Your task to perform on an android device: turn off javascript in the chrome app Image 0: 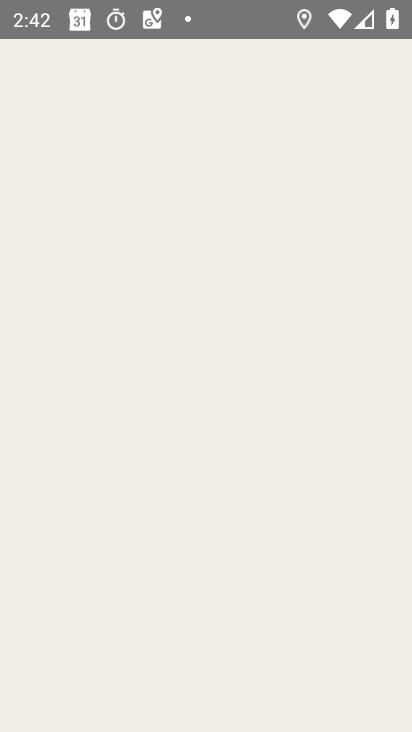
Step 0: click (300, 2)
Your task to perform on an android device: turn off javascript in the chrome app Image 1: 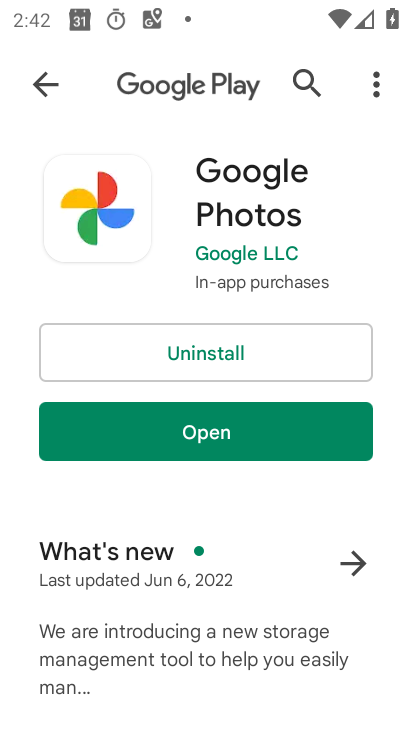
Step 1: press home button
Your task to perform on an android device: turn off javascript in the chrome app Image 2: 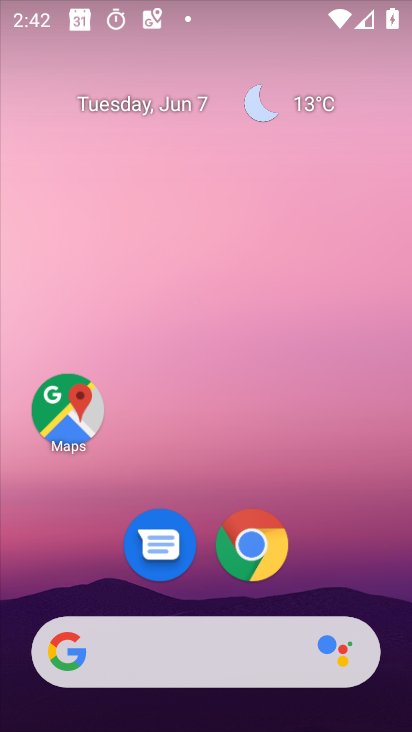
Step 2: click (258, 542)
Your task to perform on an android device: turn off javascript in the chrome app Image 3: 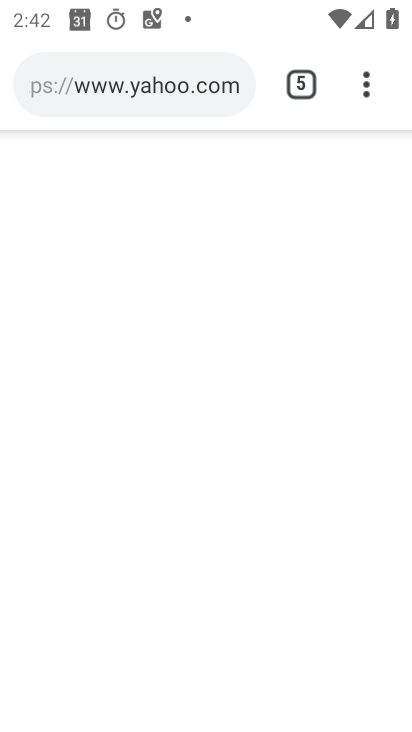
Step 3: click (367, 83)
Your task to perform on an android device: turn off javascript in the chrome app Image 4: 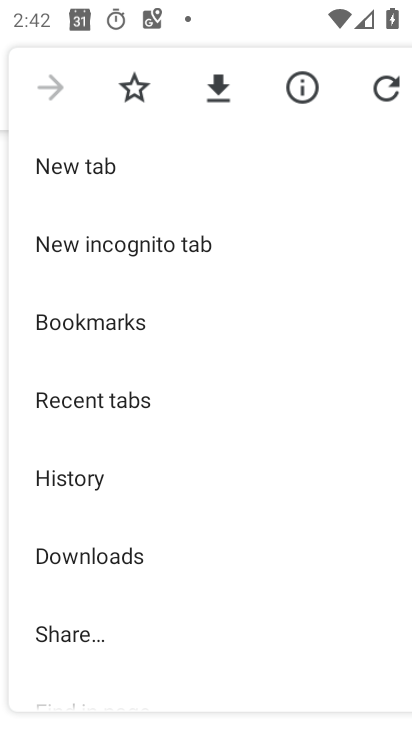
Step 4: drag from (205, 590) to (234, 0)
Your task to perform on an android device: turn off javascript in the chrome app Image 5: 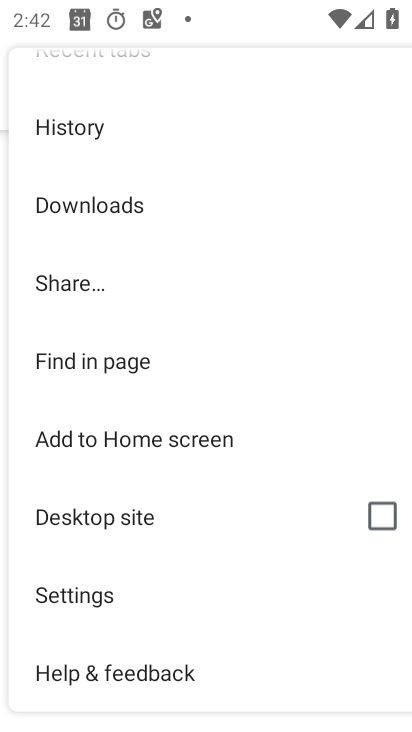
Step 5: click (122, 597)
Your task to perform on an android device: turn off javascript in the chrome app Image 6: 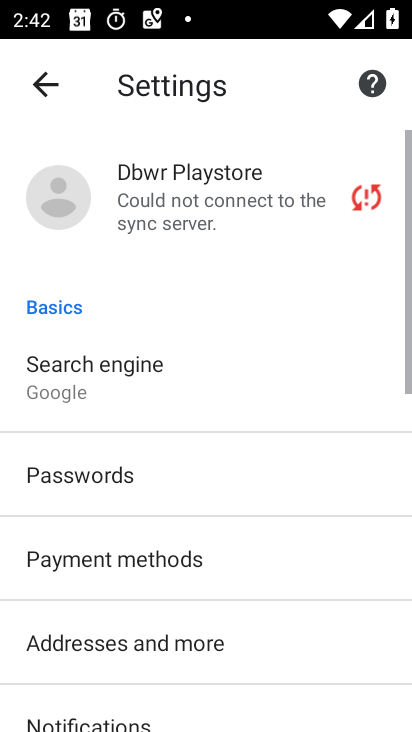
Step 6: drag from (196, 651) to (186, 15)
Your task to perform on an android device: turn off javascript in the chrome app Image 7: 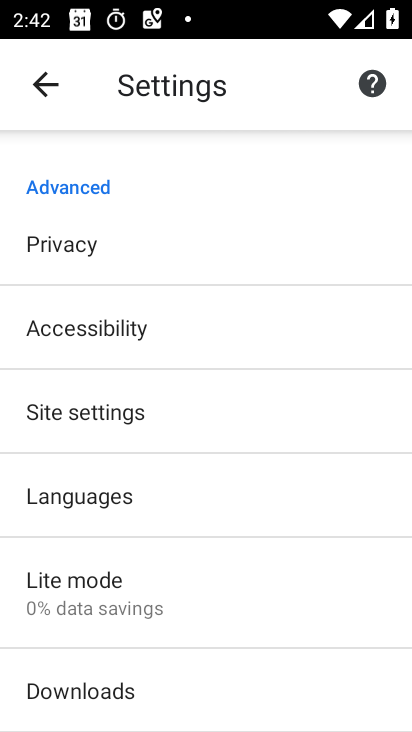
Step 7: click (118, 424)
Your task to perform on an android device: turn off javascript in the chrome app Image 8: 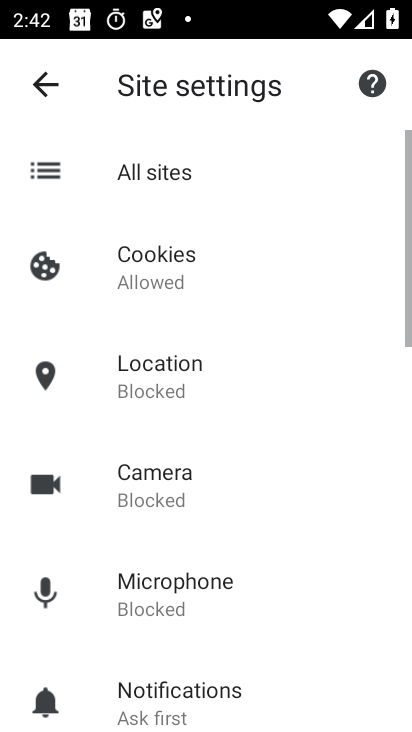
Step 8: drag from (210, 693) to (266, 182)
Your task to perform on an android device: turn off javascript in the chrome app Image 9: 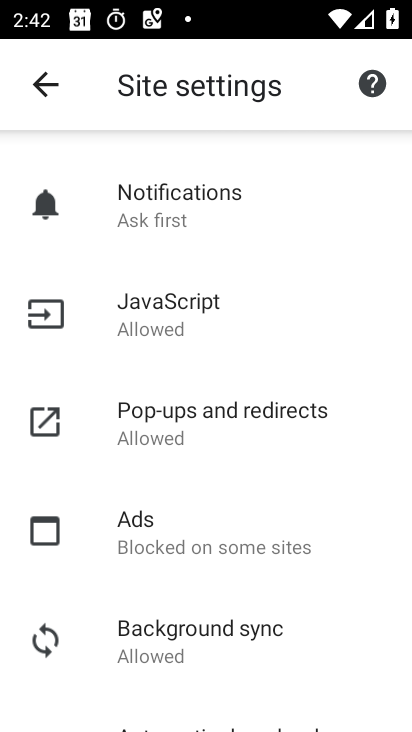
Step 9: click (204, 311)
Your task to perform on an android device: turn off javascript in the chrome app Image 10: 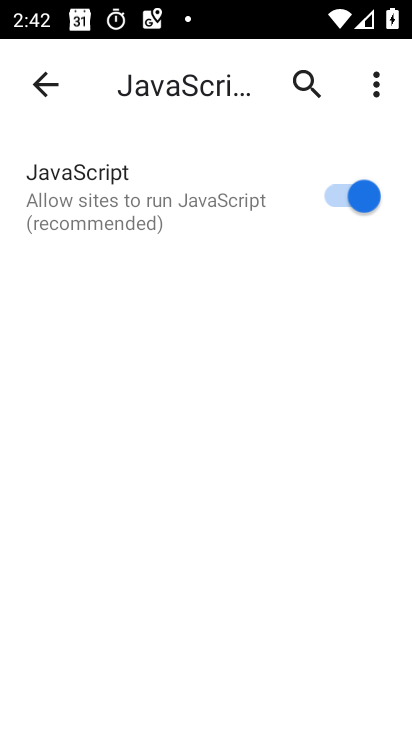
Step 10: click (333, 194)
Your task to perform on an android device: turn off javascript in the chrome app Image 11: 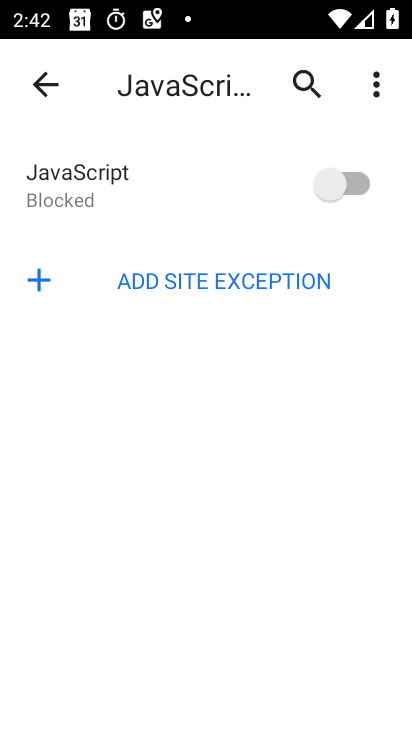
Step 11: task complete